Your task to perform on an android device: Open internet settings Image 0: 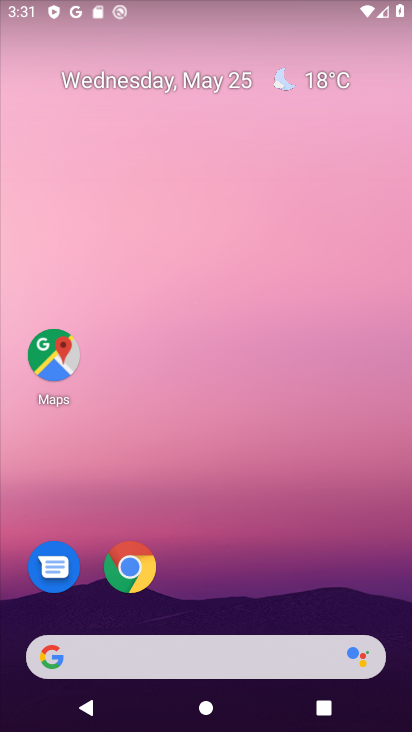
Step 0: drag from (373, 571) to (364, 218)
Your task to perform on an android device: Open internet settings Image 1: 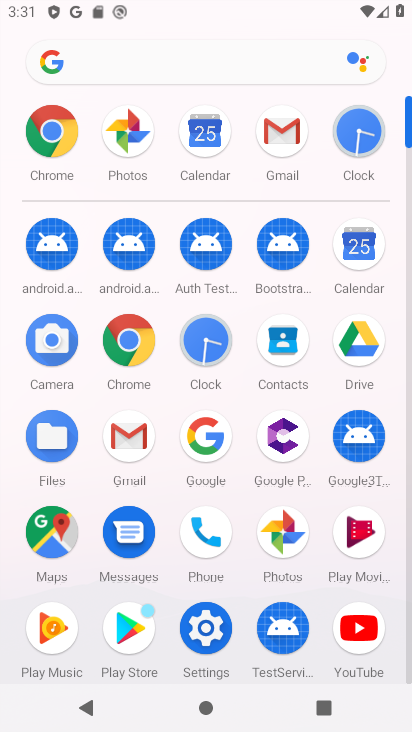
Step 1: click (209, 648)
Your task to perform on an android device: Open internet settings Image 2: 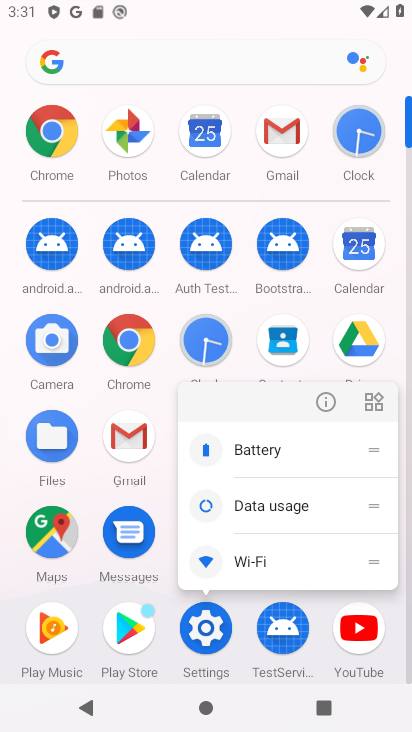
Step 2: click (209, 648)
Your task to perform on an android device: Open internet settings Image 3: 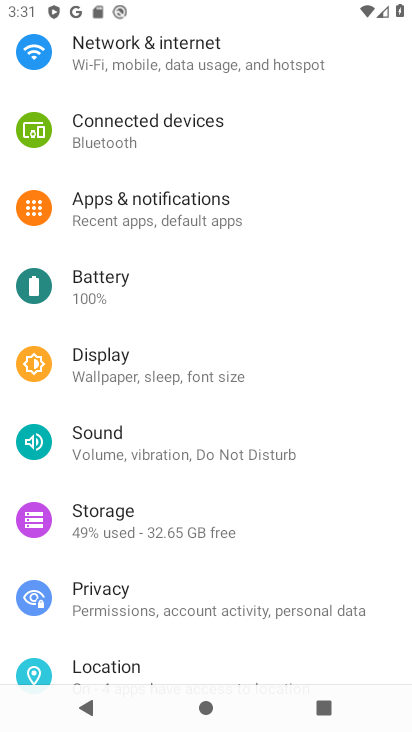
Step 3: drag from (315, 329) to (329, 416)
Your task to perform on an android device: Open internet settings Image 4: 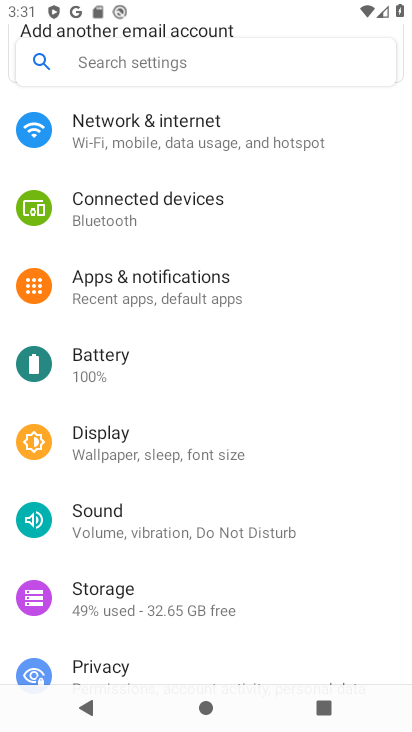
Step 4: drag from (330, 287) to (342, 378)
Your task to perform on an android device: Open internet settings Image 5: 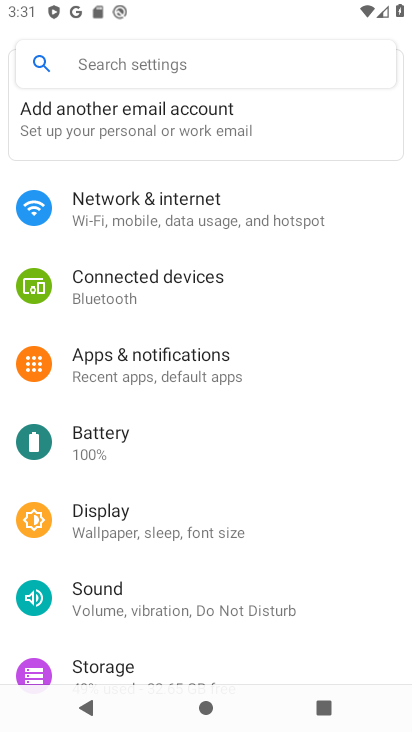
Step 5: drag from (346, 273) to (358, 399)
Your task to perform on an android device: Open internet settings Image 6: 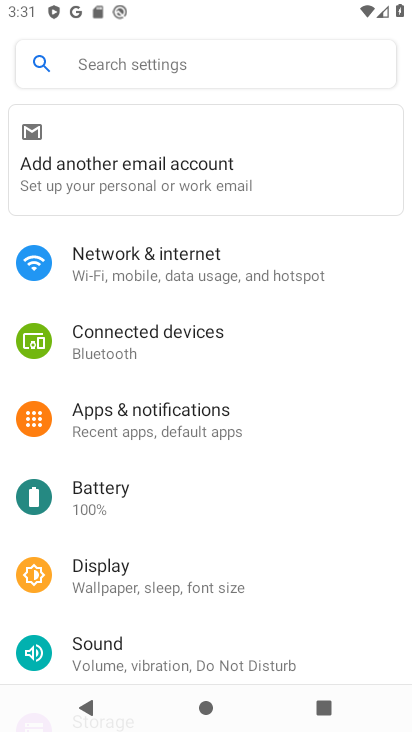
Step 6: drag from (369, 265) to (359, 380)
Your task to perform on an android device: Open internet settings Image 7: 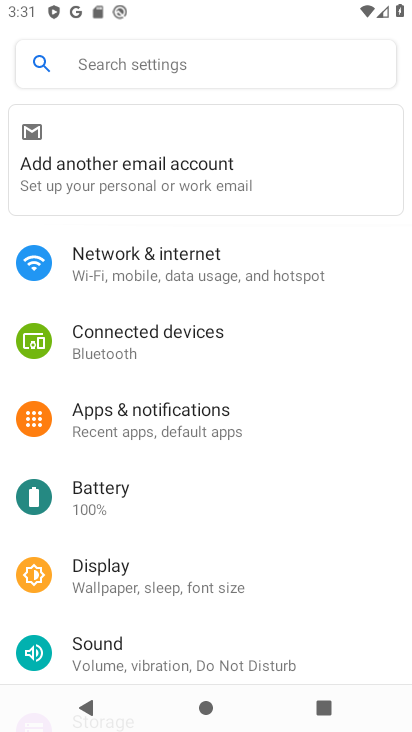
Step 7: click (253, 274)
Your task to perform on an android device: Open internet settings Image 8: 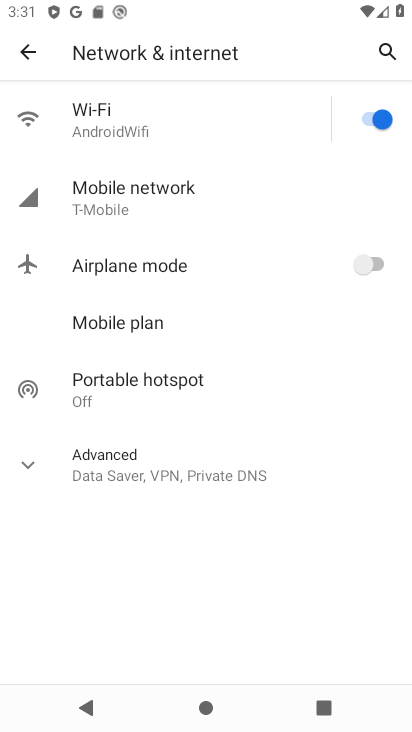
Step 8: task complete